Your task to perform on an android device: Open the phone app and click the voicemail tab. Image 0: 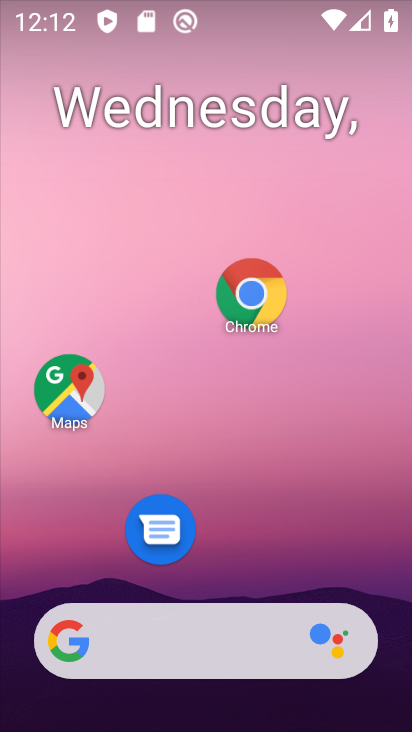
Step 0: drag from (280, 447) to (280, 325)
Your task to perform on an android device: Open the phone app and click the voicemail tab. Image 1: 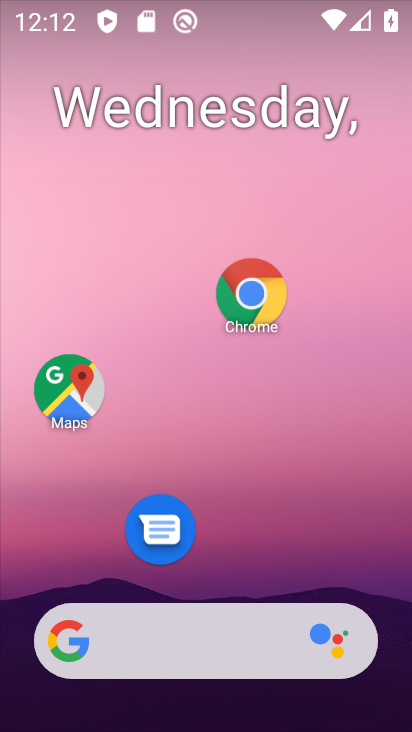
Step 1: drag from (261, 603) to (263, 240)
Your task to perform on an android device: Open the phone app and click the voicemail tab. Image 2: 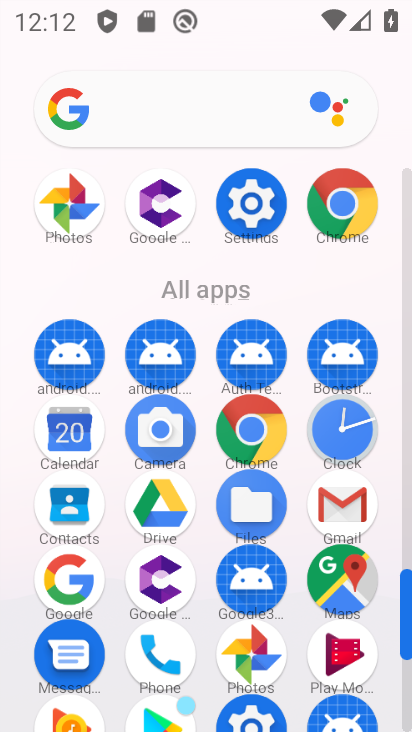
Step 2: drag from (170, 625) to (184, 448)
Your task to perform on an android device: Open the phone app and click the voicemail tab. Image 3: 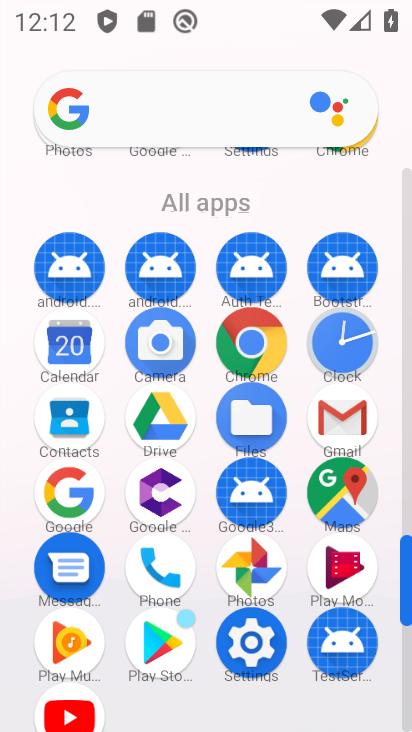
Step 3: click (177, 556)
Your task to perform on an android device: Open the phone app and click the voicemail tab. Image 4: 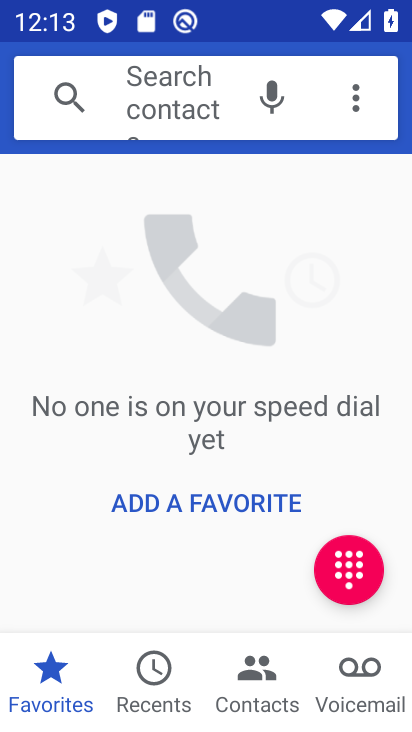
Step 4: click (354, 680)
Your task to perform on an android device: Open the phone app and click the voicemail tab. Image 5: 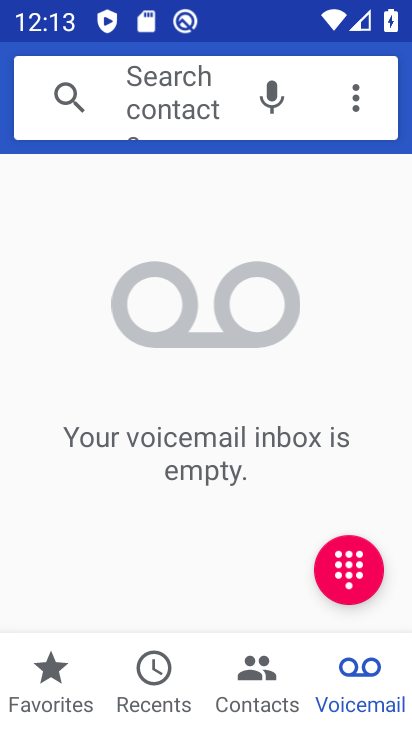
Step 5: task complete